Your task to perform on an android device: show emergency info Image 0: 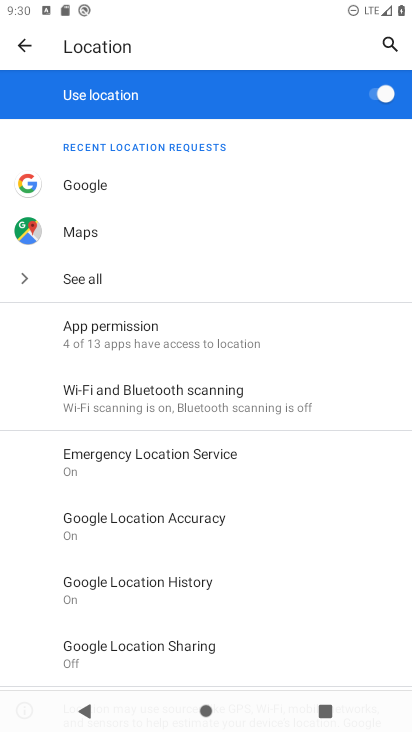
Step 0: press home button
Your task to perform on an android device: show emergency info Image 1: 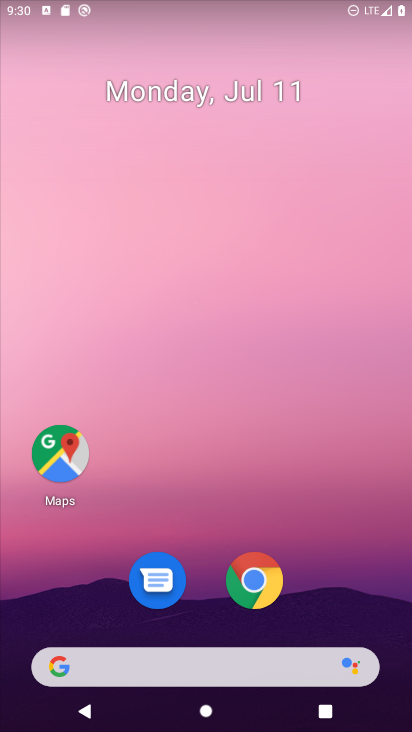
Step 1: drag from (302, 531) to (277, 27)
Your task to perform on an android device: show emergency info Image 2: 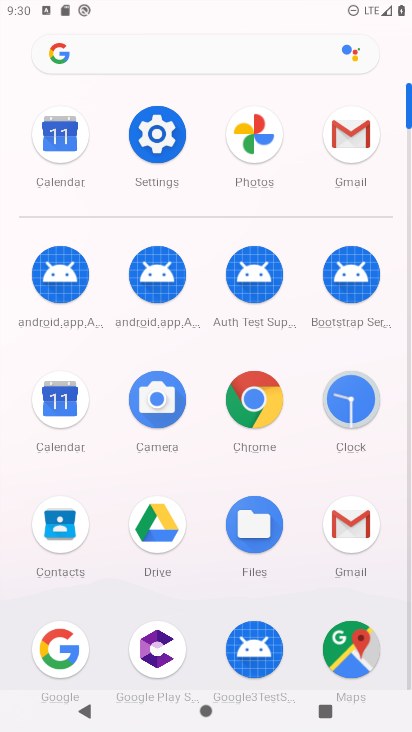
Step 2: click (152, 122)
Your task to perform on an android device: show emergency info Image 3: 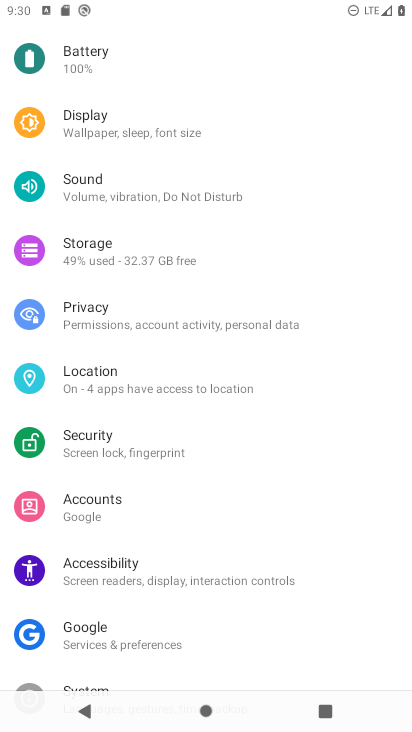
Step 3: drag from (238, 529) to (215, 187)
Your task to perform on an android device: show emergency info Image 4: 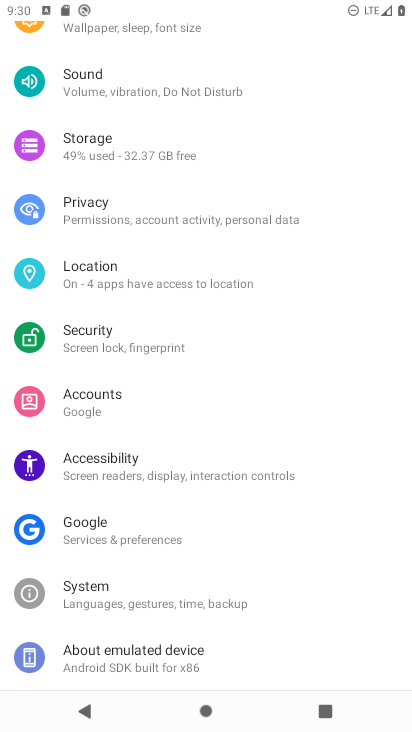
Step 4: click (181, 651)
Your task to perform on an android device: show emergency info Image 5: 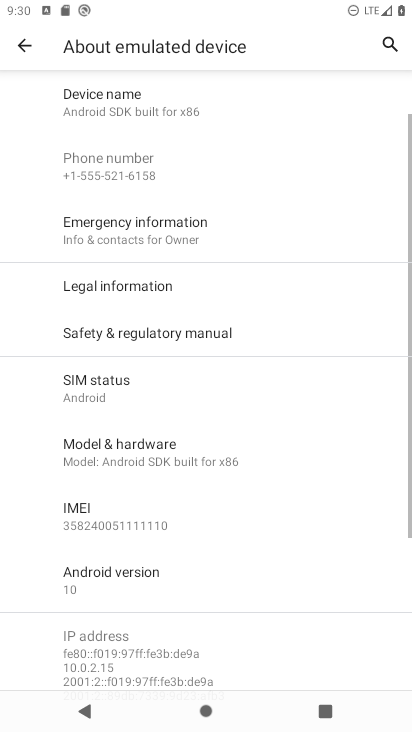
Step 5: click (164, 228)
Your task to perform on an android device: show emergency info Image 6: 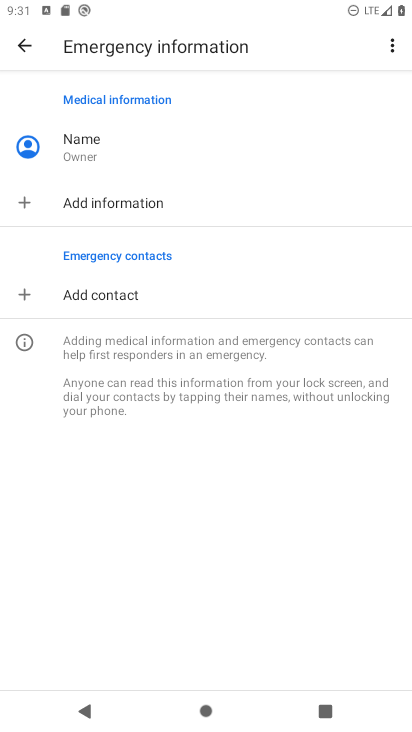
Step 6: task complete